Your task to perform on an android device: Check the news Image 0: 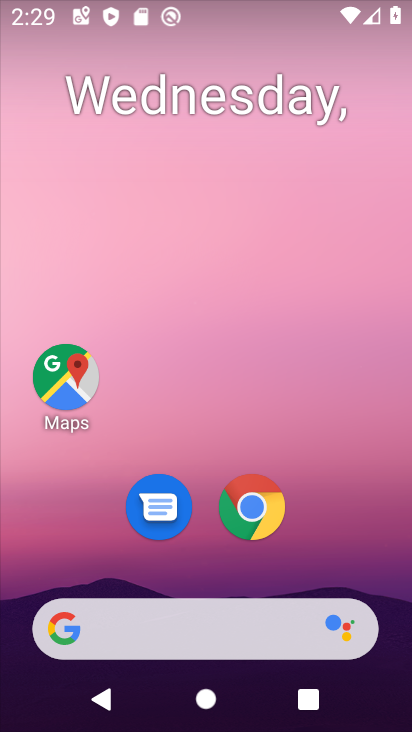
Step 0: click (162, 614)
Your task to perform on an android device: Check the news Image 1: 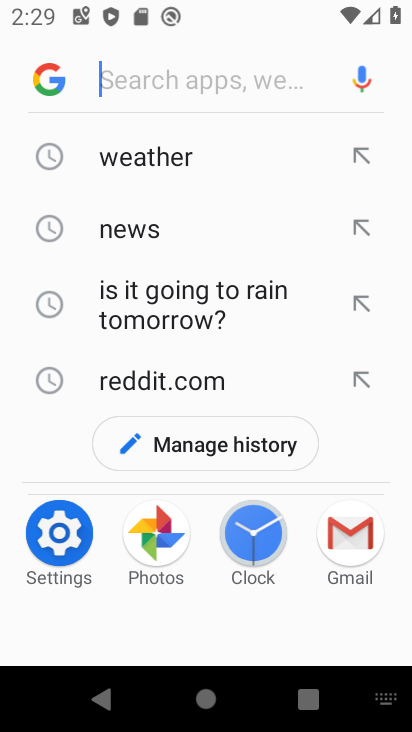
Step 1: click (105, 226)
Your task to perform on an android device: Check the news Image 2: 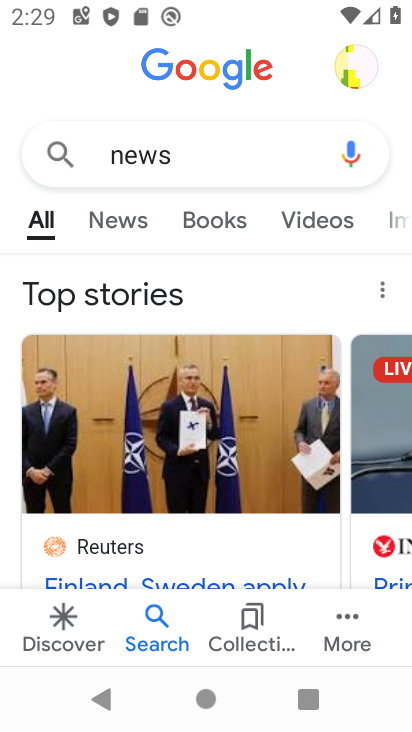
Step 2: drag from (148, 451) to (153, 72)
Your task to perform on an android device: Check the news Image 3: 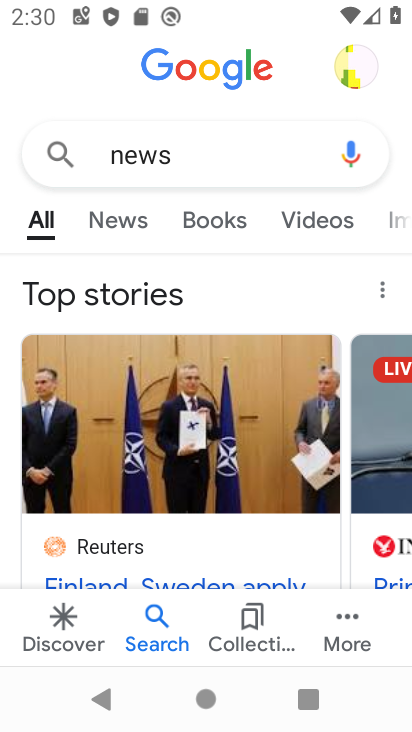
Step 3: press home button
Your task to perform on an android device: Check the news Image 4: 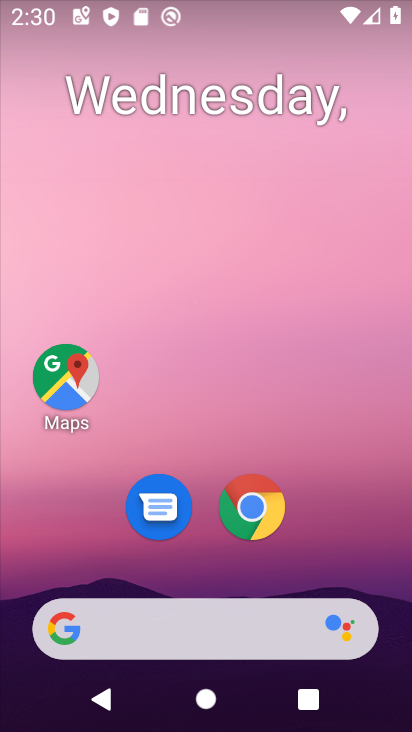
Step 4: click (188, 624)
Your task to perform on an android device: Check the news Image 5: 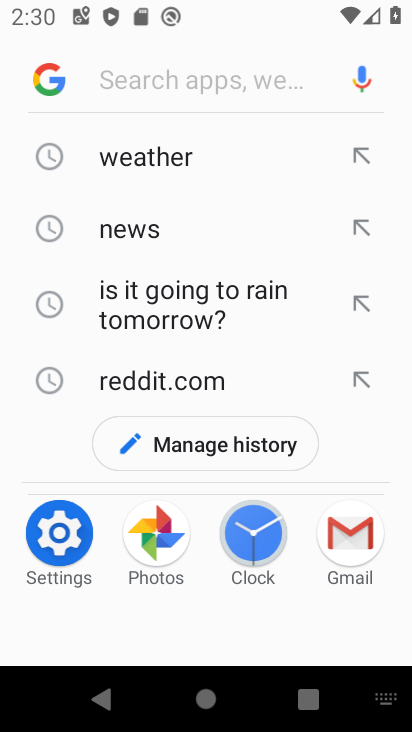
Step 5: click (176, 251)
Your task to perform on an android device: Check the news Image 6: 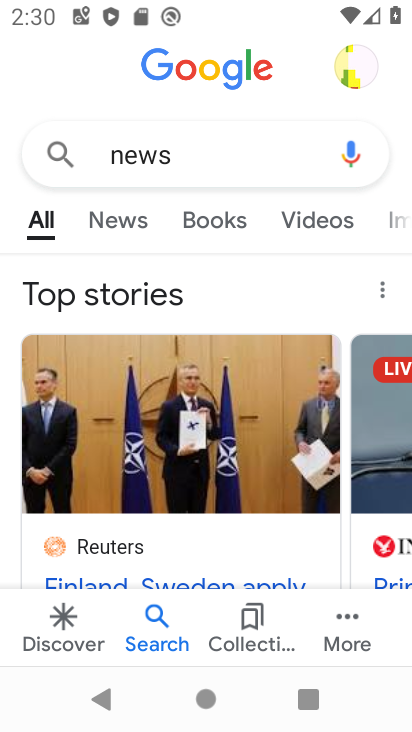
Step 6: task complete